Your task to perform on an android device: Turn off the flashlight Image 0: 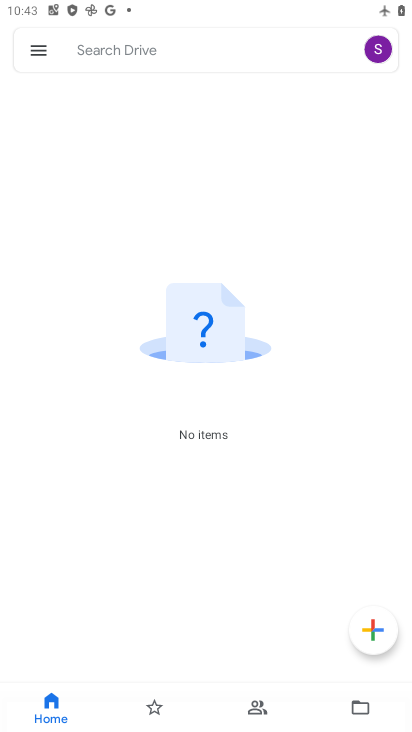
Step 0: press home button
Your task to perform on an android device: Turn off the flashlight Image 1: 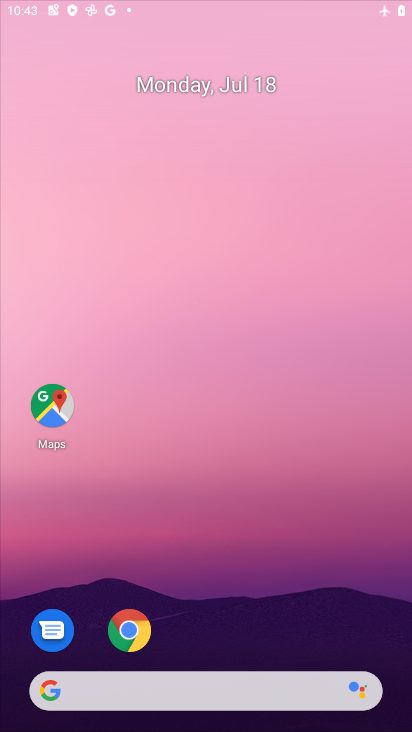
Step 1: drag from (375, 640) to (327, 80)
Your task to perform on an android device: Turn off the flashlight Image 2: 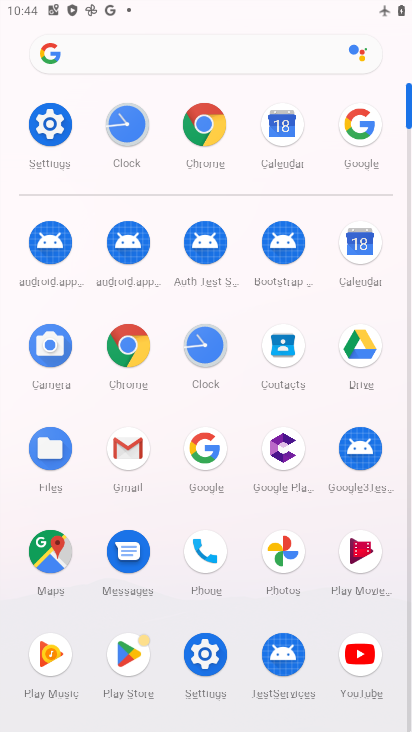
Step 2: click (53, 125)
Your task to perform on an android device: Turn off the flashlight Image 3: 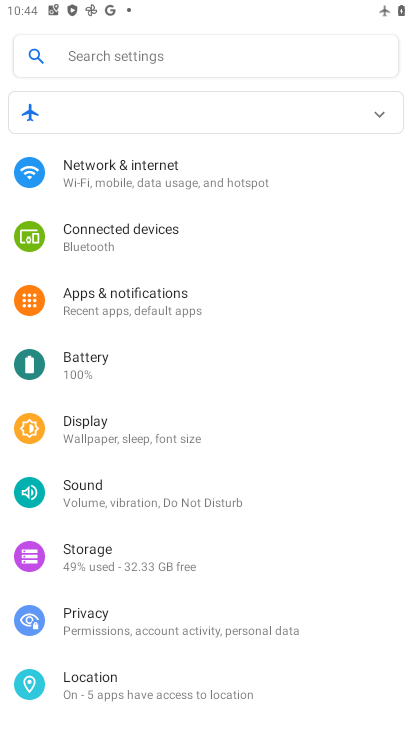
Step 3: task complete